Your task to perform on an android device: Go to Android settings Image 0: 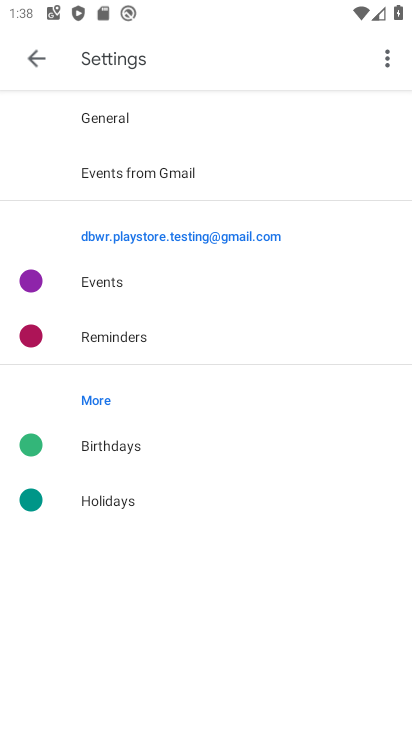
Step 0: press home button
Your task to perform on an android device: Go to Android settings Image 1: 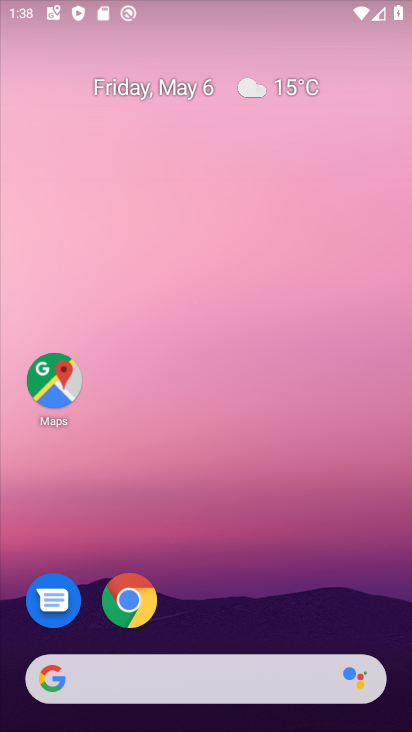
Step 1: drag from (333, 614) to (280, 89)
Your task to perform on an android device: Go to Android settings Image 2: 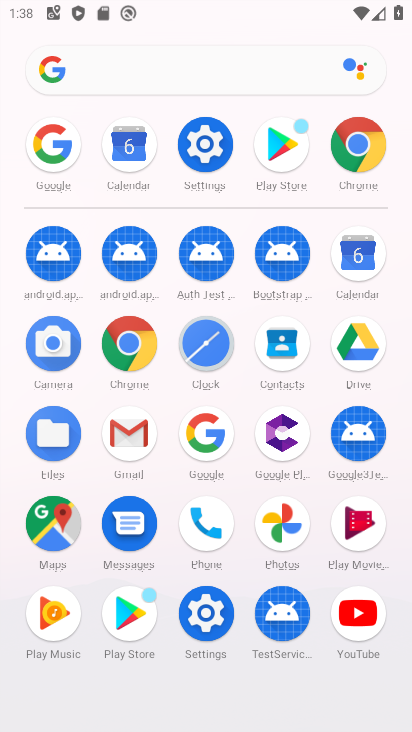
Step 2: click (205, 150)
Your task to perform on an android device: Go to Android settings Image 3: 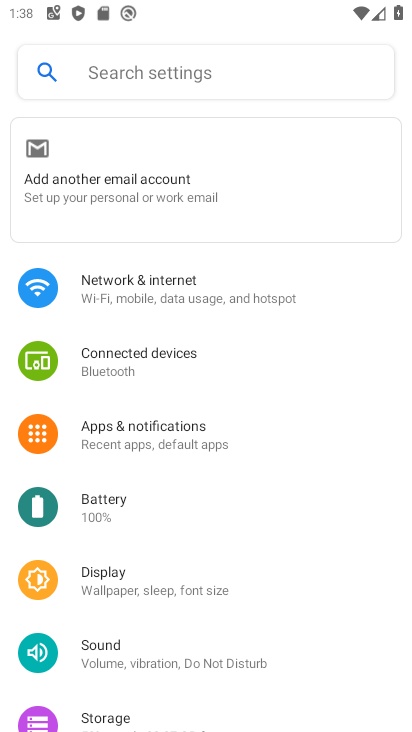
Step 3: drag from (195, 596) to (241, 82)
Your task to perform on an android device: Go to Android settings Image 4: 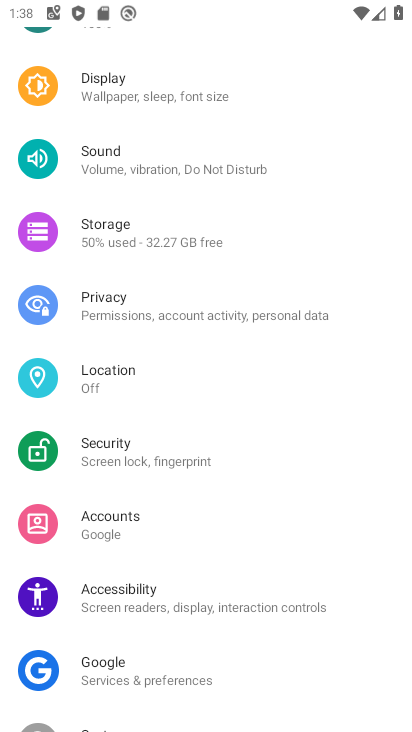
Step 4: drag from (151, 655) to (244, 110)
Your task to perform on an android device: Go to Android settings Image 5: 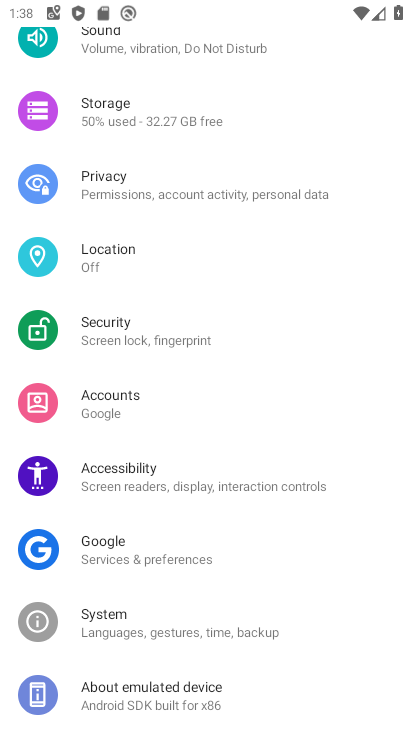
Step 5: click (161, 701)
Your task to perform on an android device: Go to Android settings Image 6: 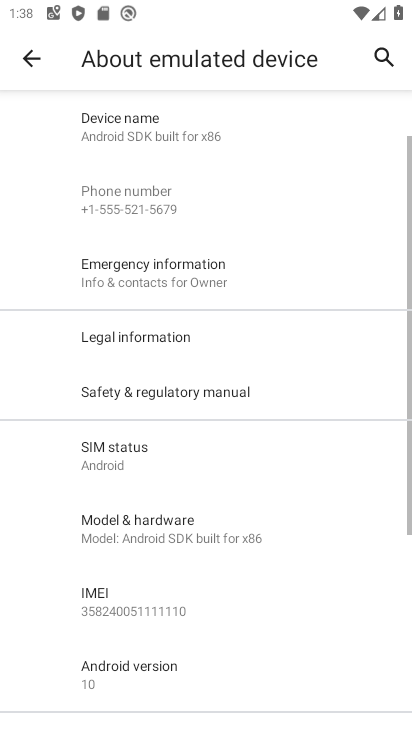
Step 6: click (145, 658)
Your task to perform on an android device: Go to Android settings Image 7: 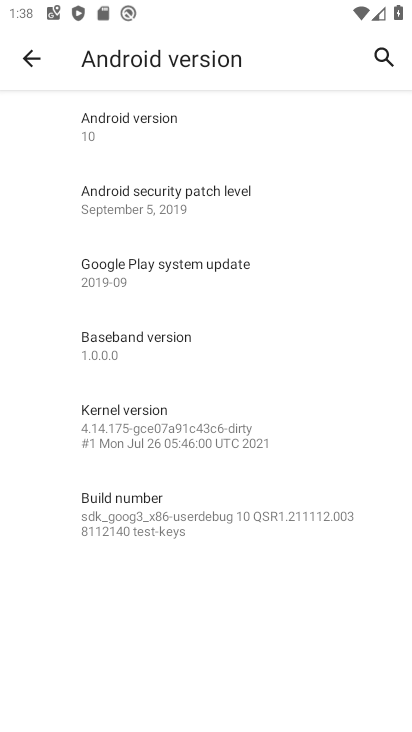
Step 7: task complete